Your task to perform on an android device: open sync settings in chrome Image 0: 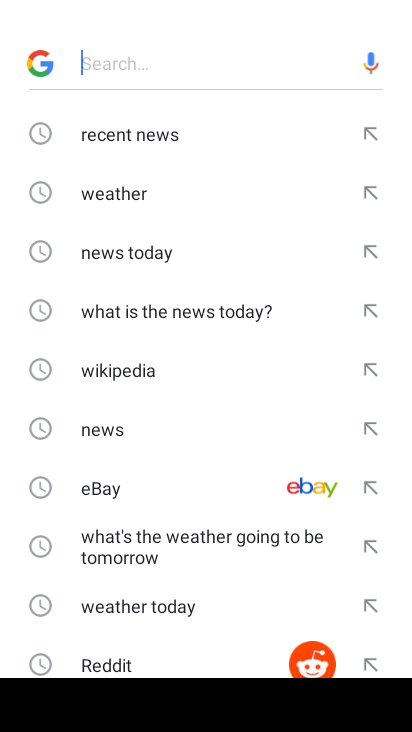
Step 0: press back button
Your task to perform on an android device: open sync settings in chrome Image 1: 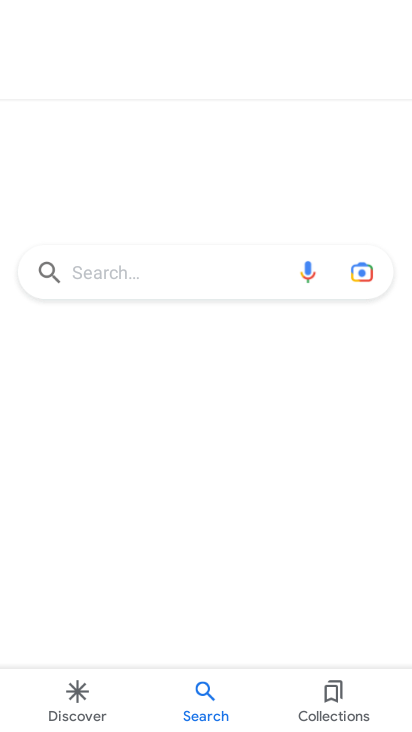
Step 1: press back button
Your task to perform on an android device: open sync settings in chrome Image 2: 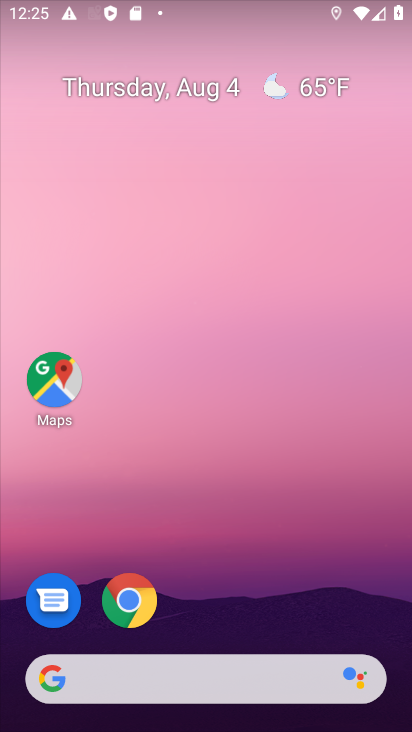
Step 2: click (108, 613)
Your task to perform on an android device: open sync settings in chrome Image 3: 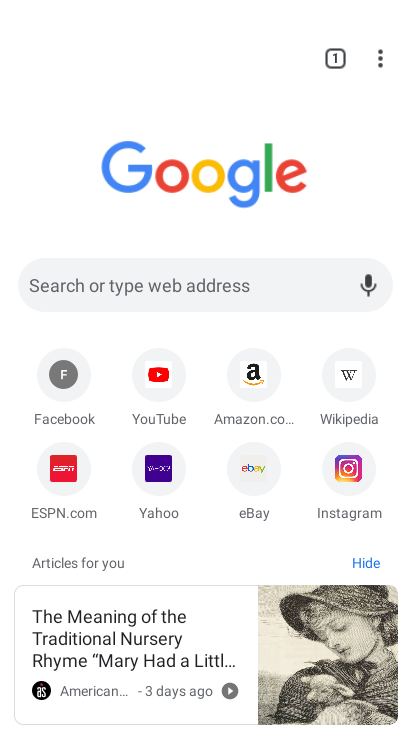
Step 3: click (383, 65)
Your task to perform on an android device: open sync settings in chrome Image 4: 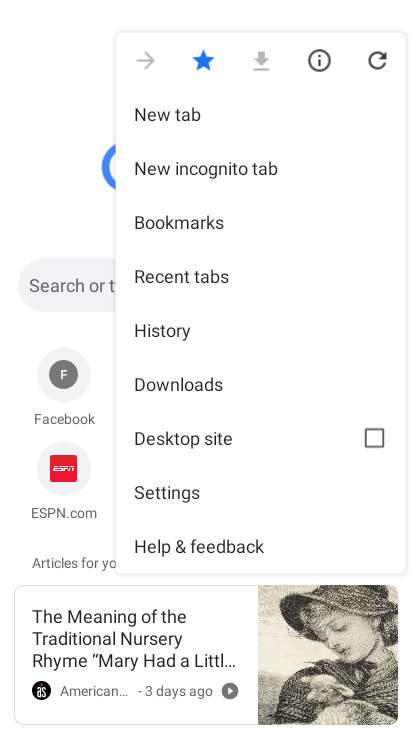
Step 4: click (133, 490)
Your task to perform on an android device: open sync settings in chrome Image 5: 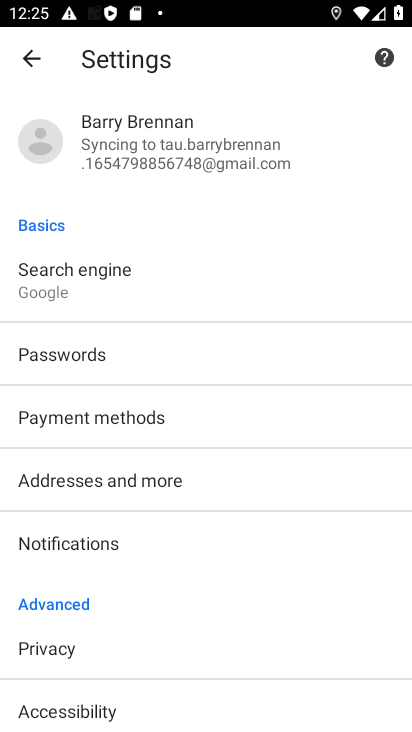
Step 5: click (106, 165)
Your task to perform on an android device: open sync settings in chrome Image 6: 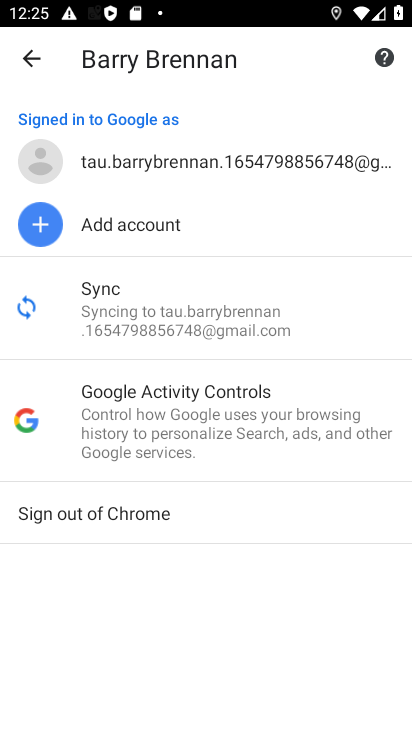
Step 6: click (187, 343)
Your task to perform on an android device: open sync settings in chrome Image 7: 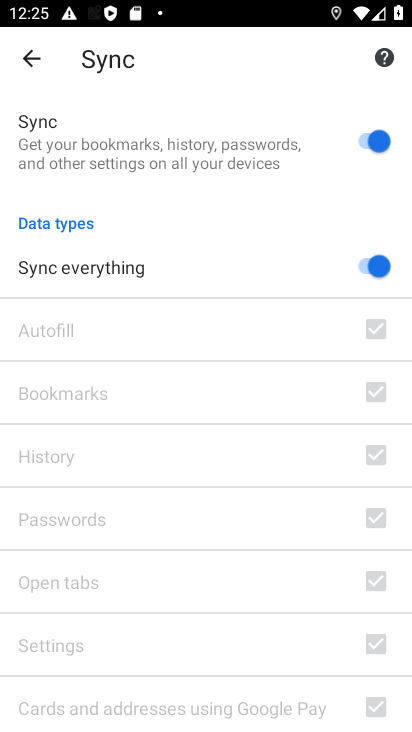
Step 7: task complete